Your task to perform on an android device: Open calendar and show me the third week of next month Image 0: 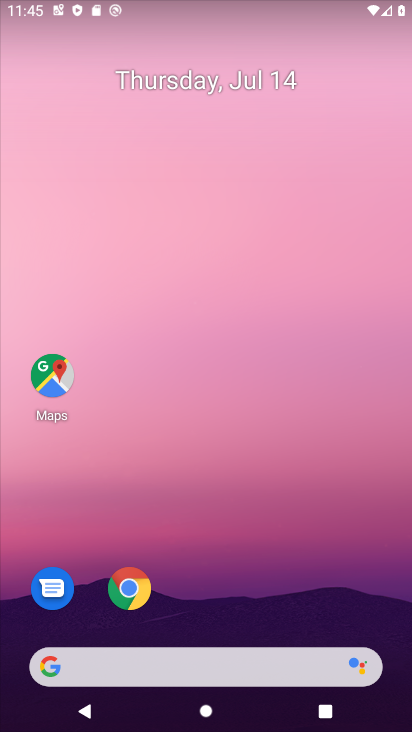
Step 0: drag from (246, 581) to (66, 17)
Your task to perform on an android device: Open calendar and show me the third week of next month Image 1: 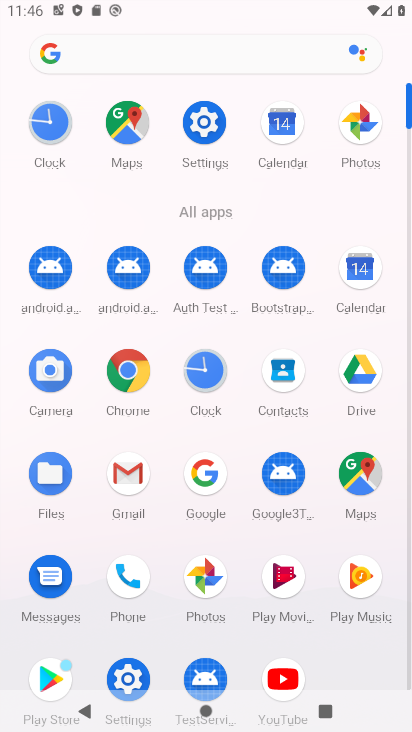
Step 1: click (366, 289)
Your task to perform on an android device: Open calendar and show me the third week of next month Image 2: 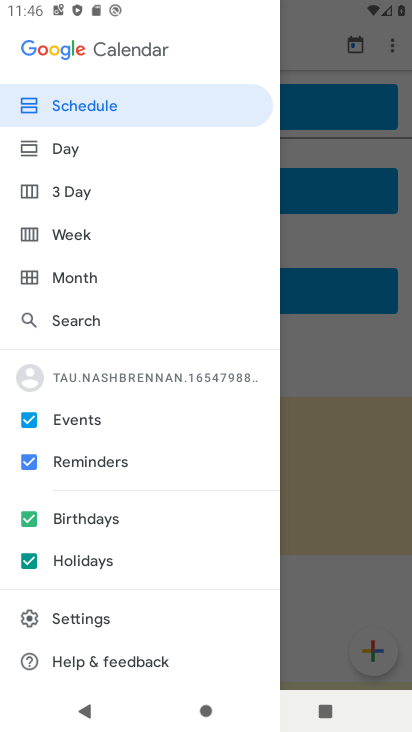
Step 2: click (164, 111)
Your task to perform on an android device: Open calendar and show me the third week of next month Image 3: 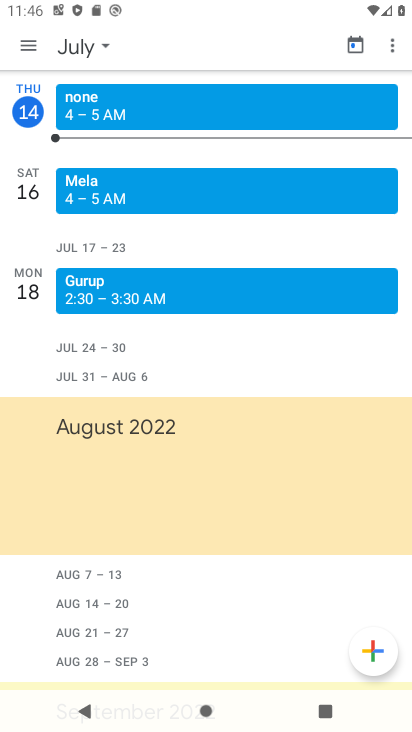
Step 3: click (106, 49)
Your task to perform on an android device: Open calendar and show me the third week of next month Image 4: 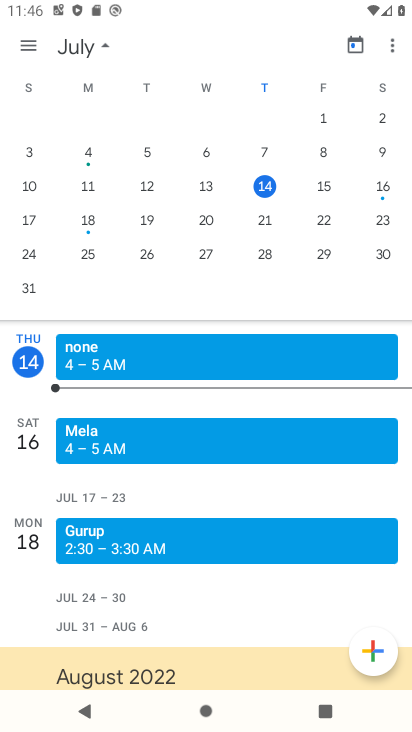
Step 4: drag from (373, 245) to (14, 257)
Your task to perform on an android device: Open calendar and show me the third week of next month Image 5: 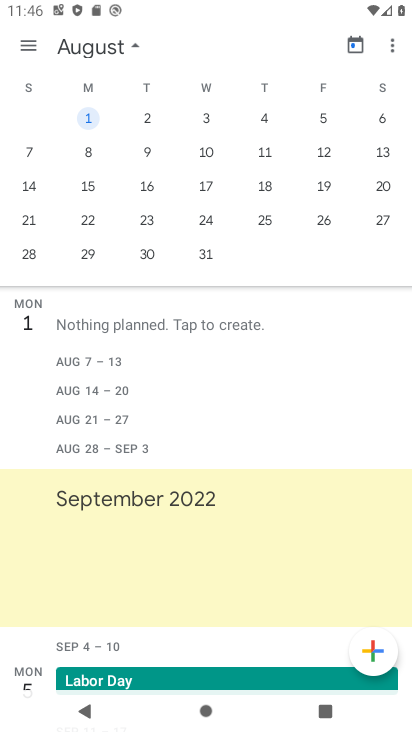
Step 5: click (92, 184)
Your task to perform on an android device: Open calendar and show me the third week of next month Image 6: 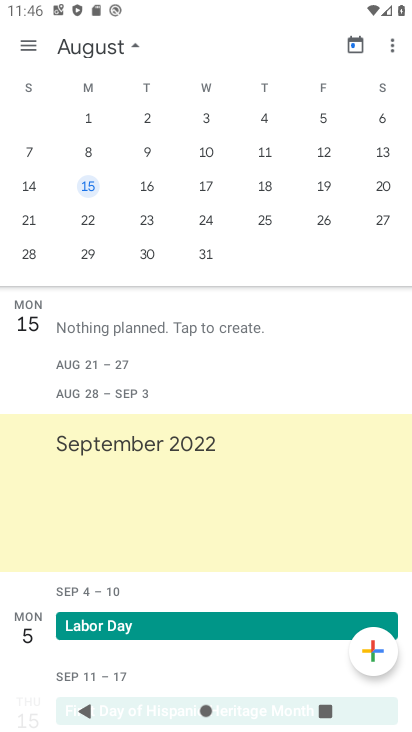
Step 6: task complete